Your task to perform on an android device: See recent photos Image 0: 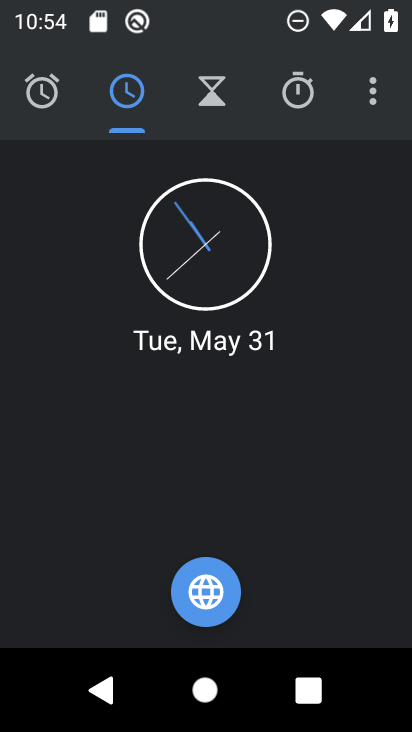
Step 0: press home button
Your task to perform on an android device: See recent photos Image 1: 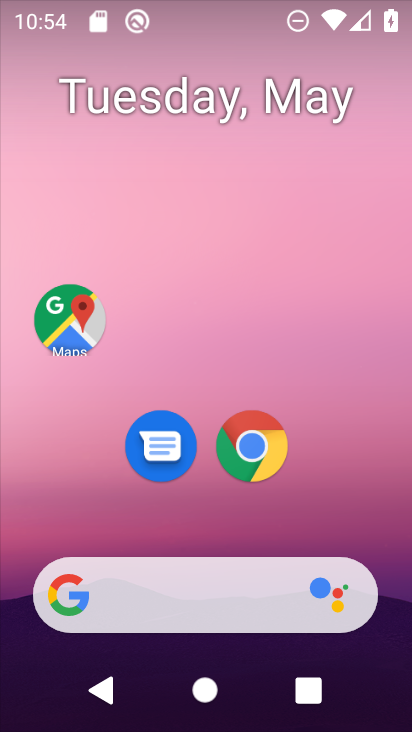
Step 1: drag from (218, 534) to (315, 0)
Your task to perform on an android device: See recent photos Image 2: 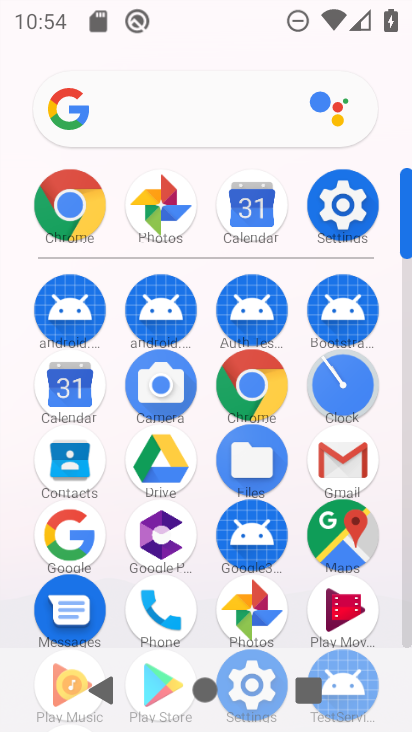
Step 2: click (248, 615)
Your task to perform on an android device: See recent photos Image 3: 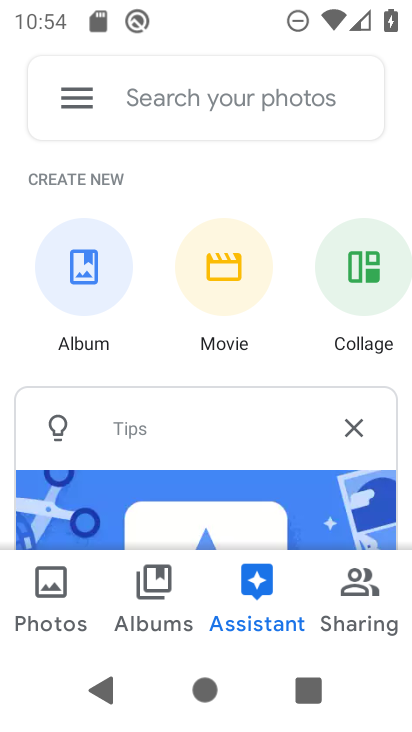
Step 3: click (55, 579)
Your task to perform on an android device: See recent photos Image 4: 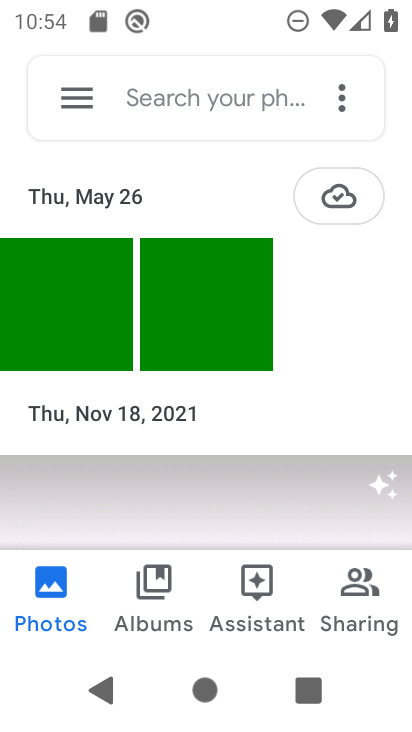
Step 4: task complete